Your task to perform on an android device: Open Reddit.com Image 0: 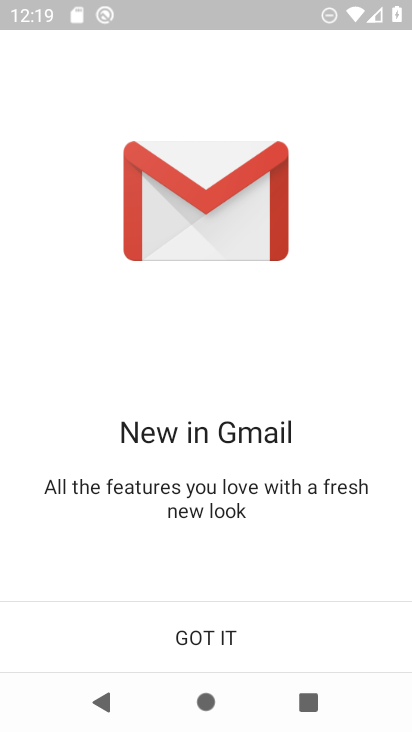
Step 0: click (199, 640)
Your task to perform on an android device: Open Reddit.com Image 1: 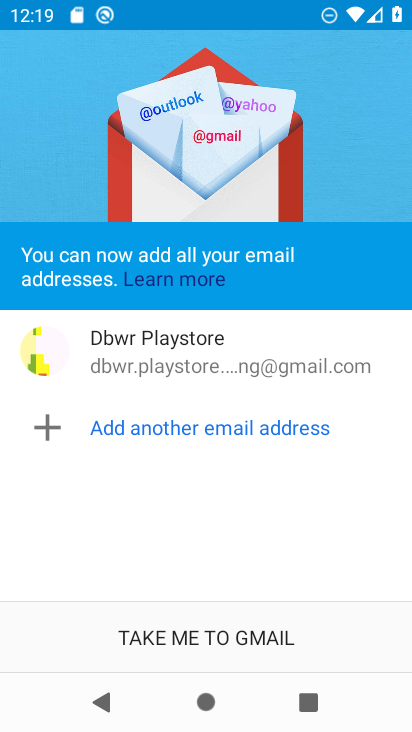
Step 1: press home button
Your task to perform on an android device: Open Reddit.com Image 2: 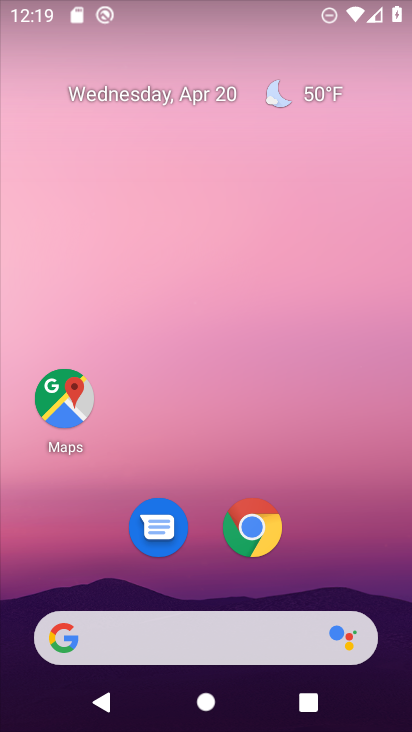
Step 2: click (249, 534)
Your task to perform on an android device: Open Reddit.com Image 3: 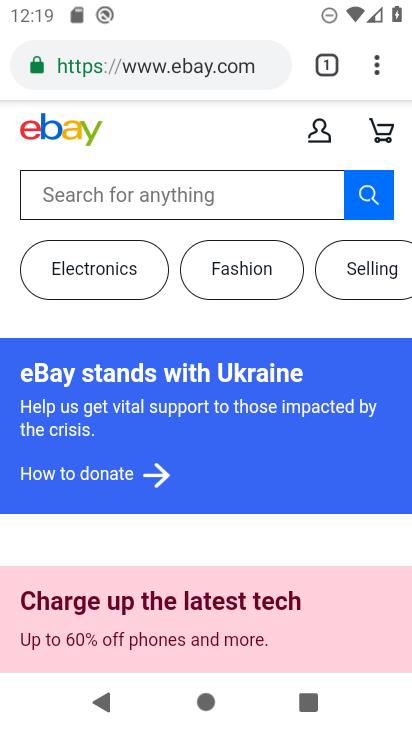
Step 3: click (237, 65)
Your task to perform on an android device: Open Reddit.com Image 4: 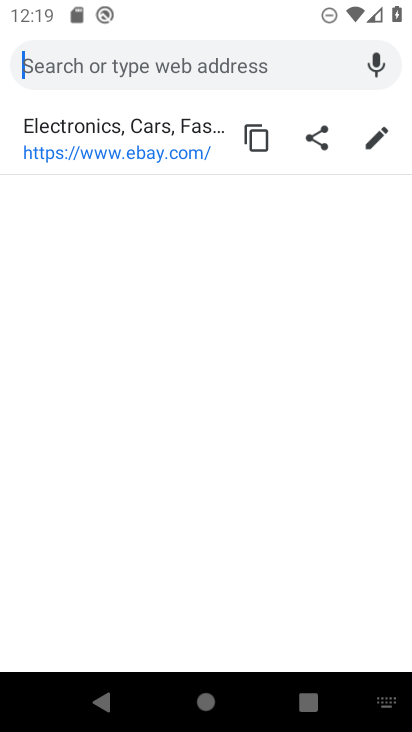
Step 4: type "reddit.com"
Your task to perform on an android device: Open Reddit.com Image 5: 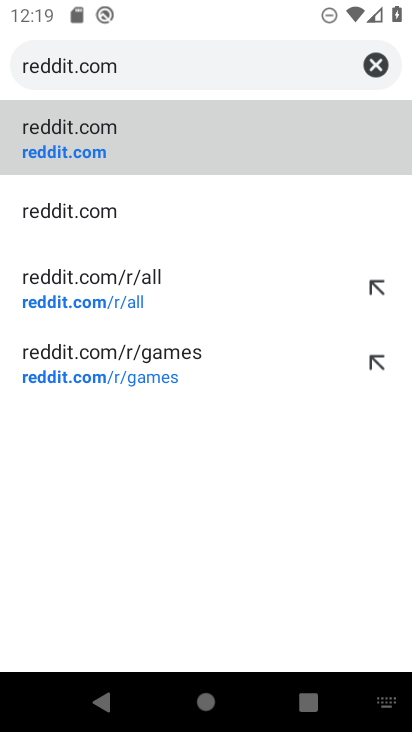
Step 5: click (44, 140)
Your task to perform on an android device: Open Reddit.com Image 6: 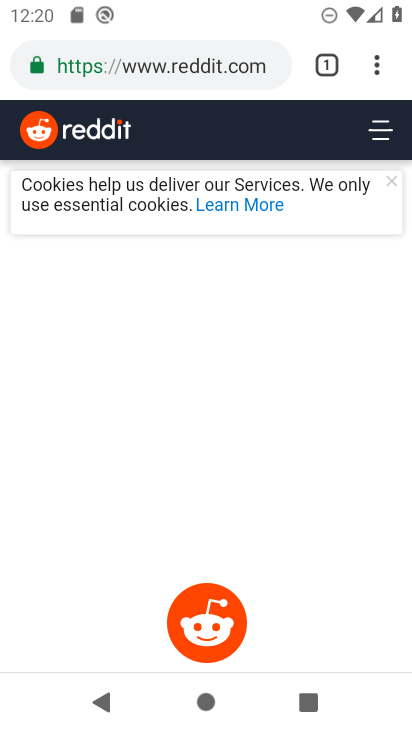
Step 6: task complete